Your task to perform on an android device: Toggle the flashlight Image 0: 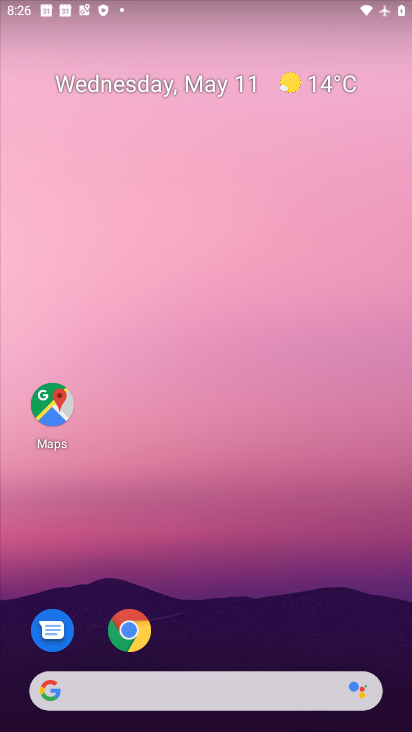
Step 0: drag from (219, 670) to (105, 43)
Your task to perform on an android device: Toggle the flashlight Image 1: 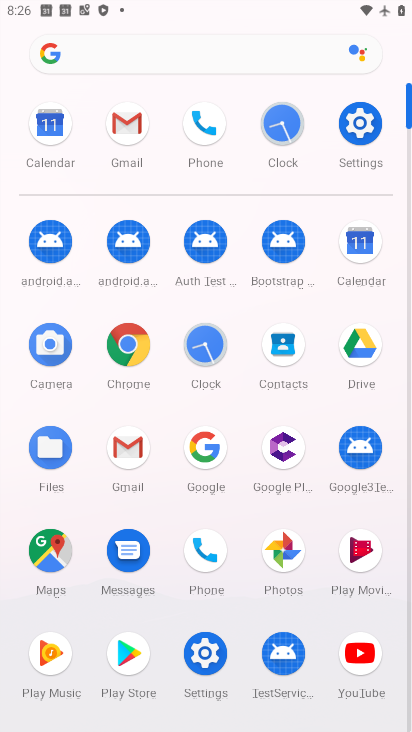
Step 1: click (364, 120)
Your task to perform on an android device: Toggle the flashlight Image 2: 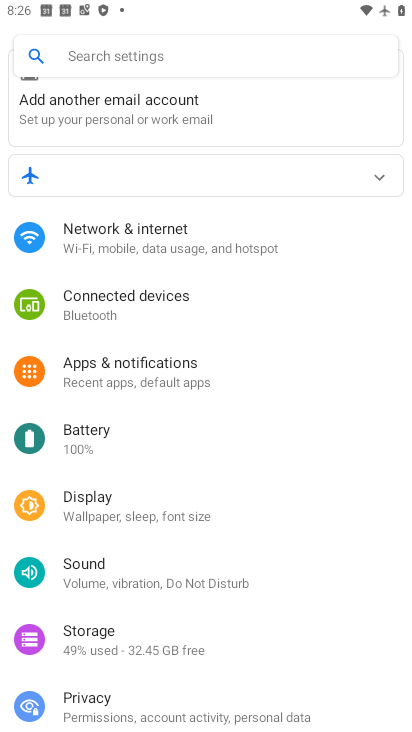
Step 2: click (161, 66)
Your task to perform on an android device: Toggle the flashlight Image 3: 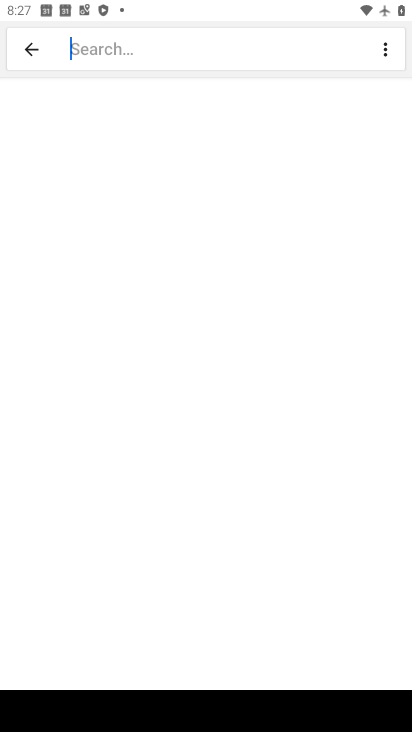
Step 3: type "flashlight"
Your task to perform on an android device: Toggle the flashlight Image 4: 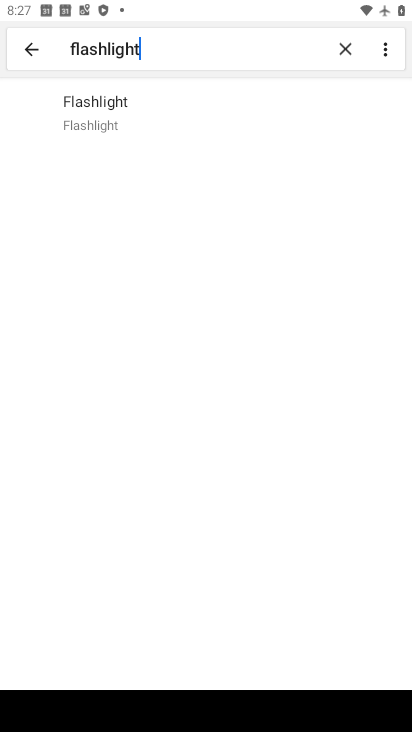
Step 4: click (151, 118)
Your task to perform on an android device: Toggle the flashlight Image 5: 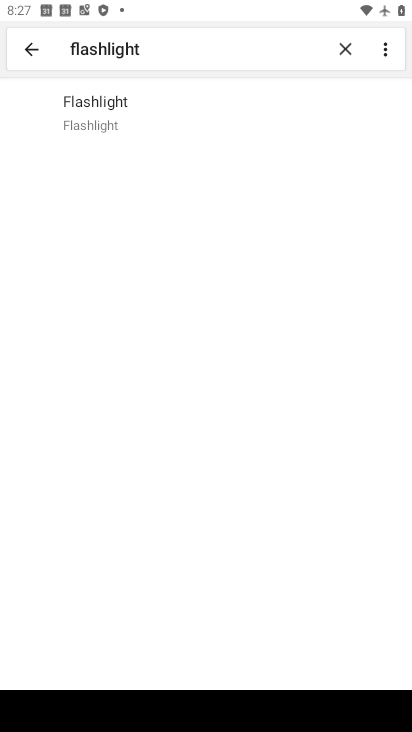
Step 5: task complete